Your task to perform on an android device: star an email in the gmail app Image 0: 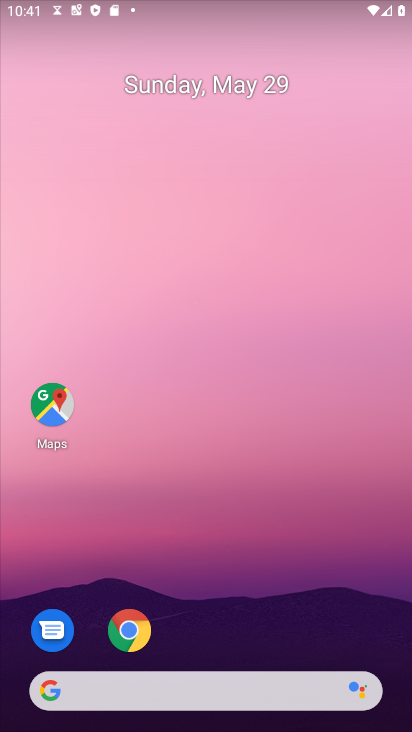
Step 0: drag from (220, 570) to (239, 183)
Your task to perform on an android device: star an email in the gmail app Image 1: 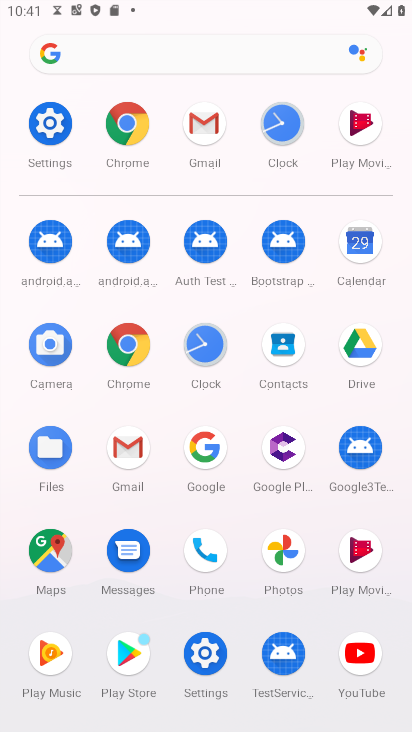
Step 1: click (124, 453)
Your task to perform on an android device: star an email in the gmail app Image 2: 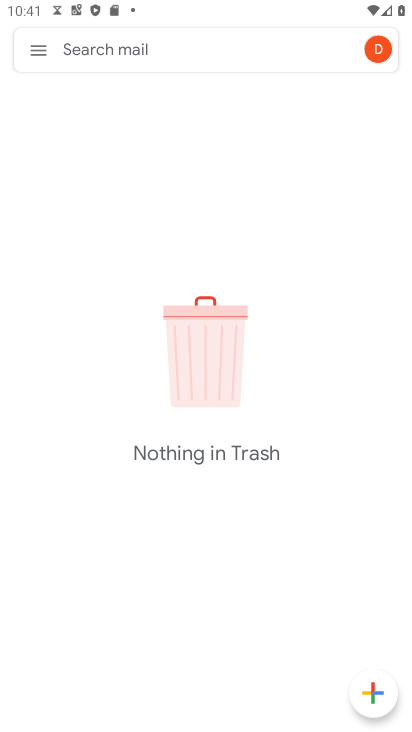
Step 2: click (38, 50)
Your task to perform on an android device: star an email in the gmail app Image 3: 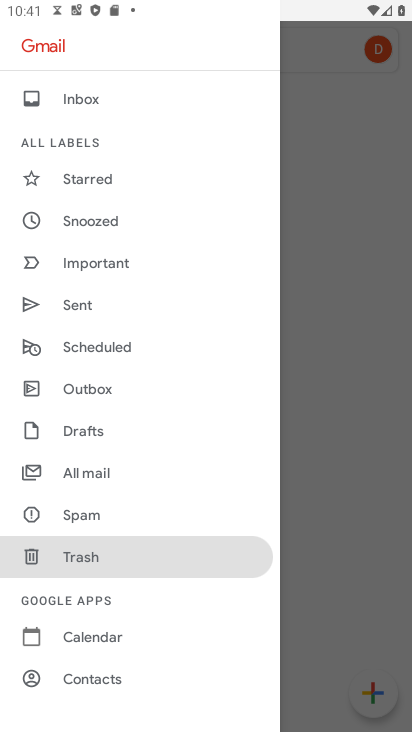
Step 3: click (67, 478)
Your task to perform on an android device: star an email in the gmail app Image 4: 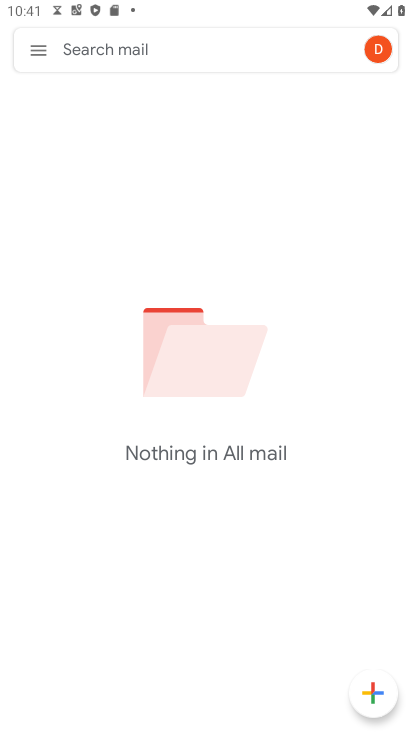
Step 4: task complete